Your task to perform on an android device: Open Wikipedia Image 0: 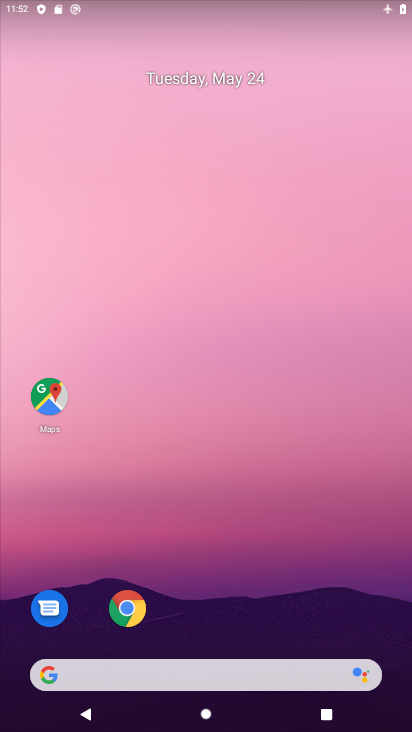
Step 0: drag from (349, 469) to (356, 161)
Your task to perform on an android device: Open Wikipedia Image 1: 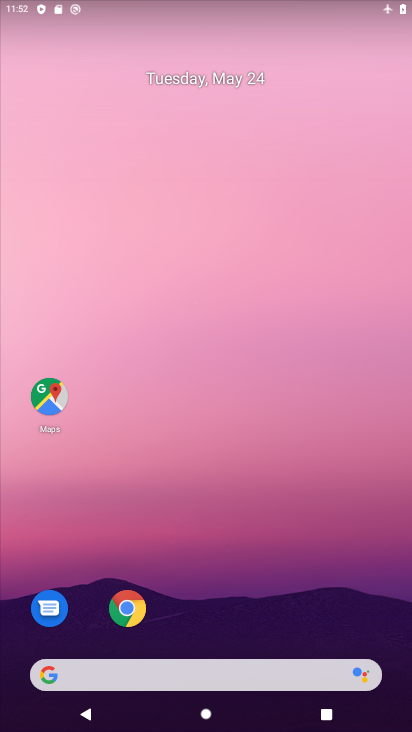
Step 1: drag from (335, 579) to (364, 4)
Your task to perform on an android device: Open Wikipedia Image 2: 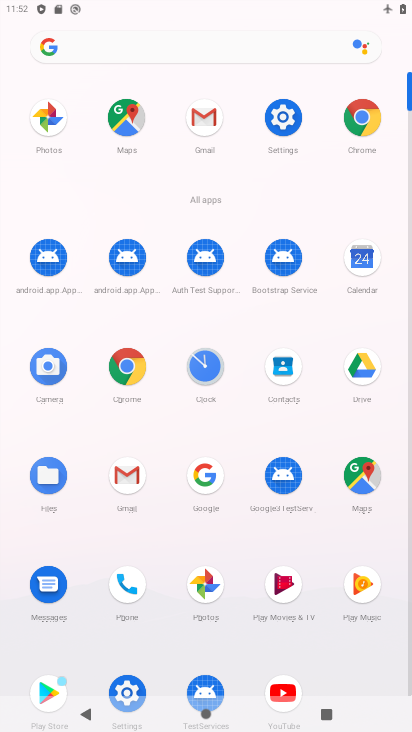
Step 2: click (134, 367)
Your task to perform on an android device: Open Wikipedia Image 3: 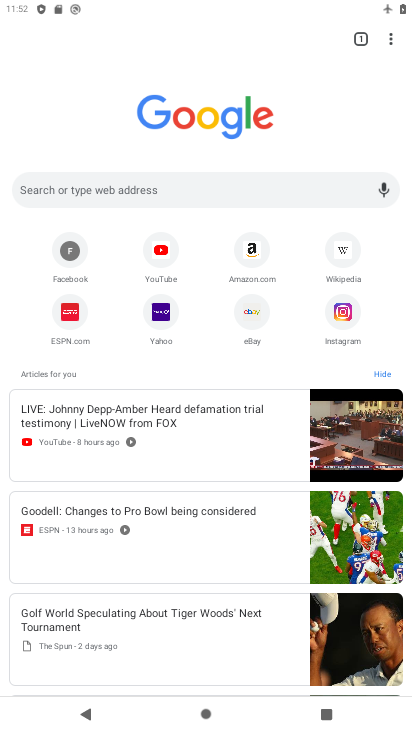
Step 3: click (121, 182)
Your task to perform on an android device: Open Wikipedia Image 4: 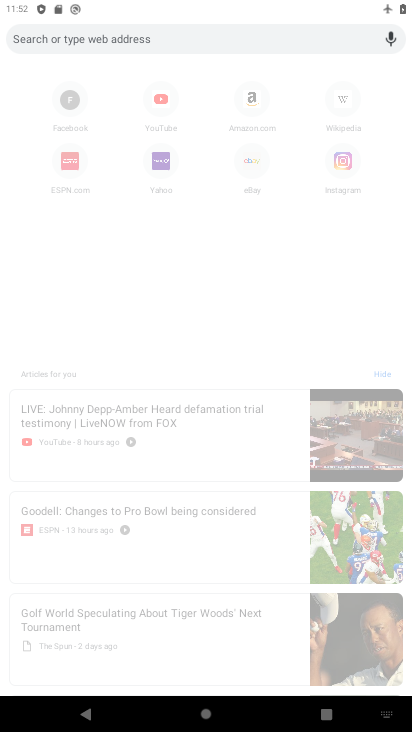
Step 4: type "wikipedia"
Your task to perform on an android device: Open Wikipedia Image 5: 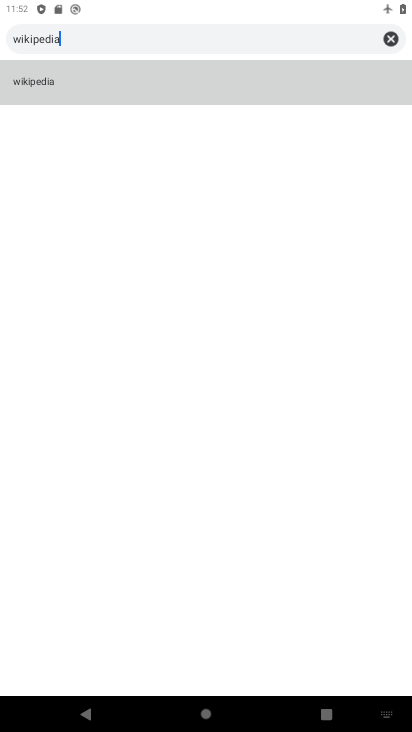
Step 5: click (52, 80)
Your task to perform on an android device: Open Wikipedia Image 6: 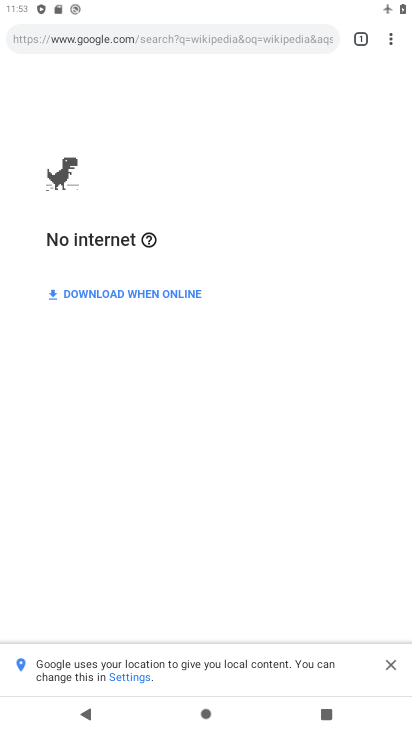
Step 6: task complete